Your task to perform on an android device: Open the map Image 0: 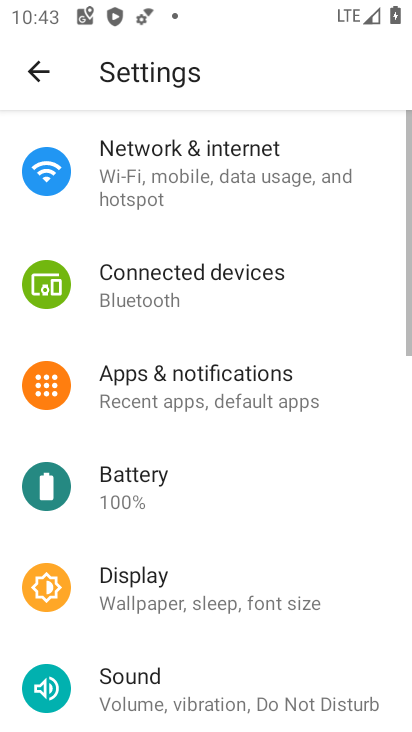
Step 0: press home button
Your task to perform on an android device: Open the map Image 1: 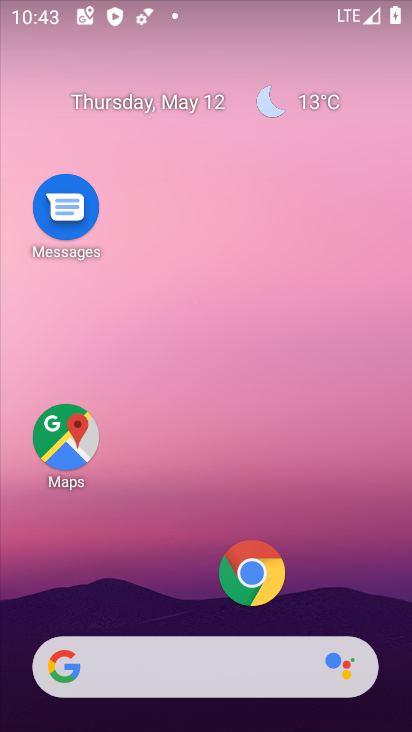
Step 1: click (58, 445)
Your task to perform on an android device: Open the map Image 2: 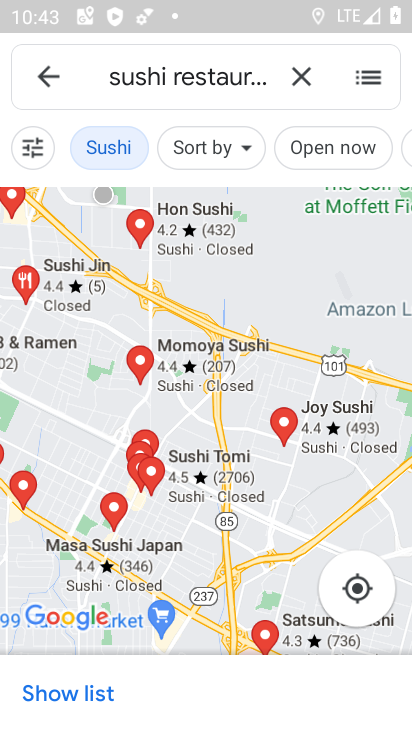
Step 2: task complete